Your task to perform on an android device: turn on airplane mode Image 0: 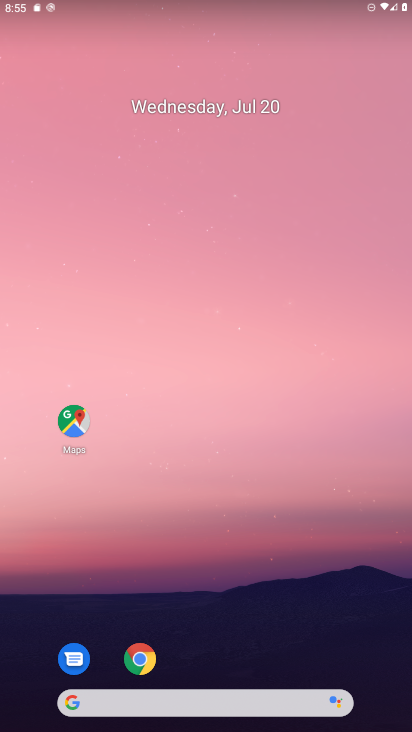
Step 0: drag from (238, 4) to (201, 386)
Your task to perform on an android device: turn on airplane mode Image 1: 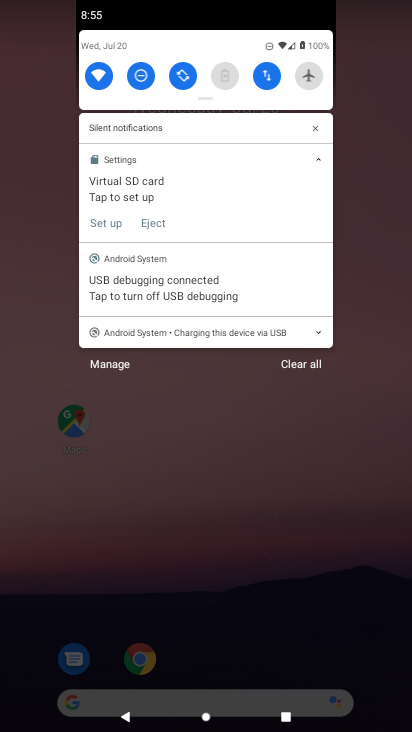
Step 1: click (297, 74)
Your task to perform on an android device: turn on airplane mode Image 2: 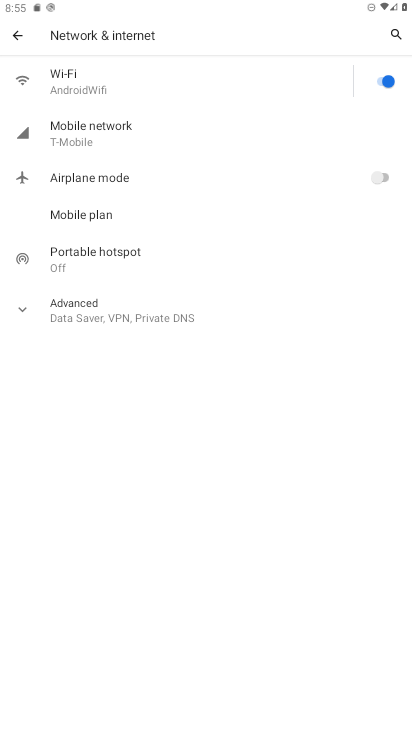
Step 2: click (386, 175)
Your task to perform on an android device: turn on airplane mode Image 3: 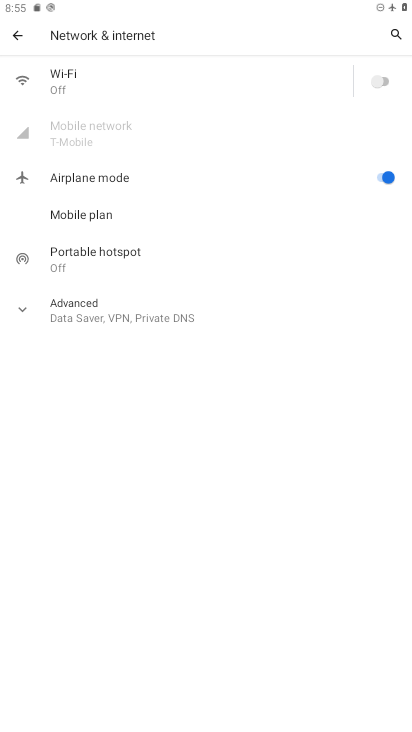
Step 3: task complete